Your task to perform on an android device: star an email in the gmail app Image 0: 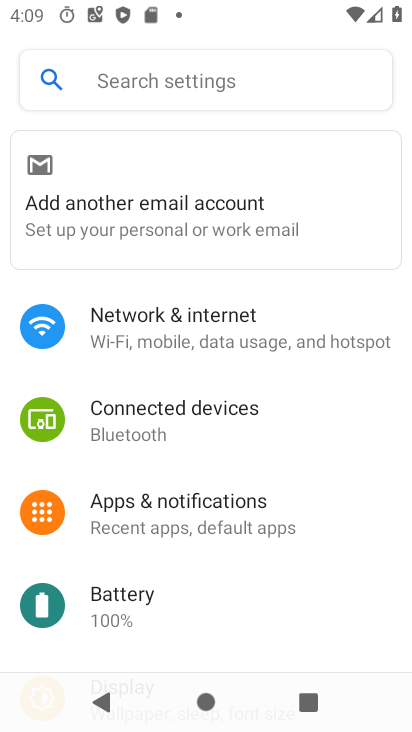
Step 0: press home button
Your task to perform on an android device: star an email in the gmail app Image 1: 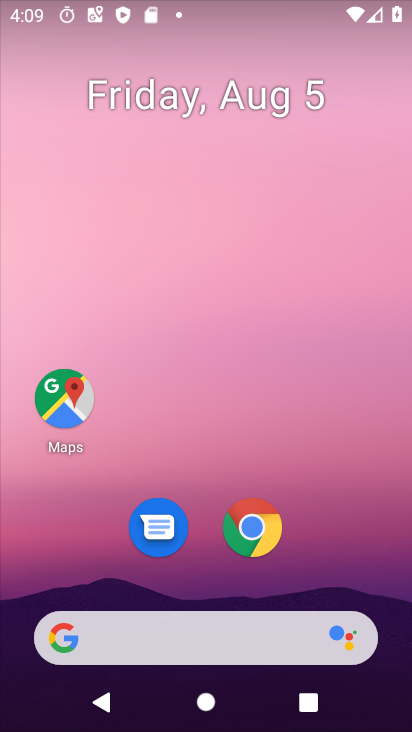
Step 1: drag from (212, 576) to (181, 9)
Your task to perform on an android device: star an email in the gmail app Image 2: 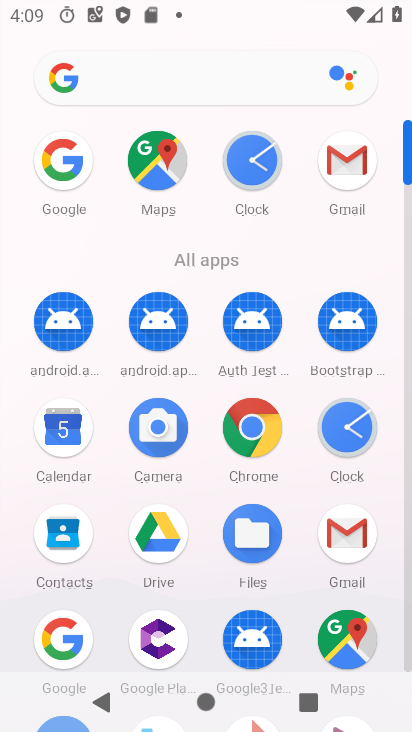
Step 2: click (341, 154)
Your task to perform on an android device: star an email in the gmail app Image 3: 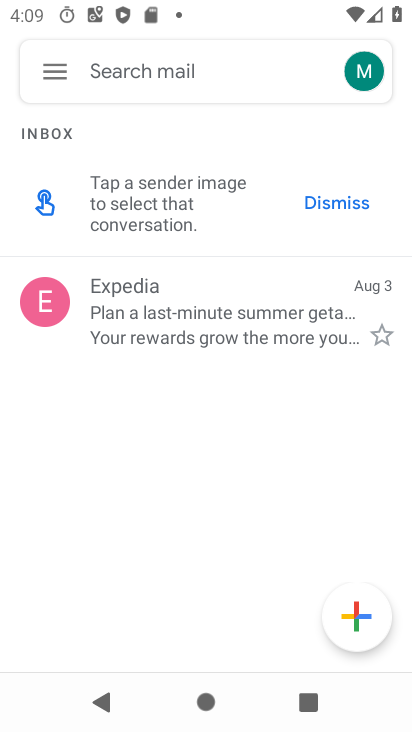
Step 3: click (376, 334)
Your task to perform on an android device: star an email in the gmail app Image 4: 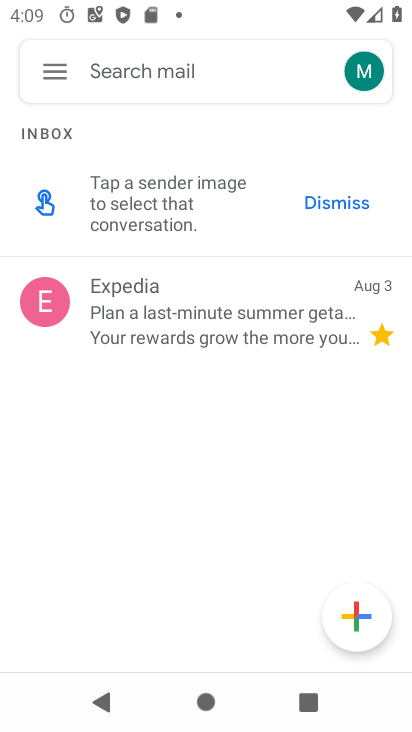
Step 4: task complete